Your task to perform on an android device: Open Youtube and go to the subscriptions tab Image 0: 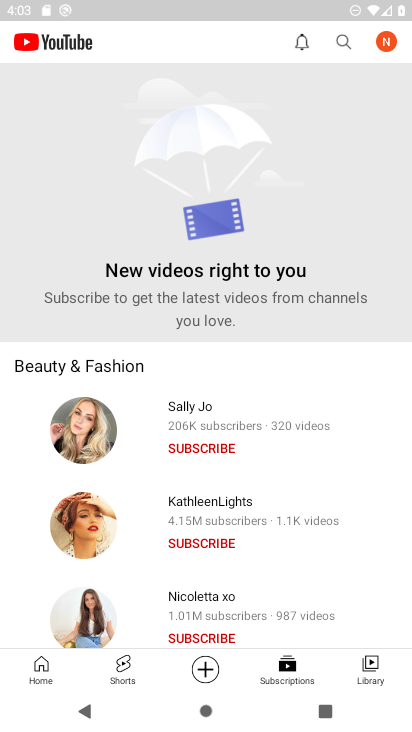
Step 0: press home button
Your task to perform on an android device: Open Youtube and go to the subscriptions tab Image 1: 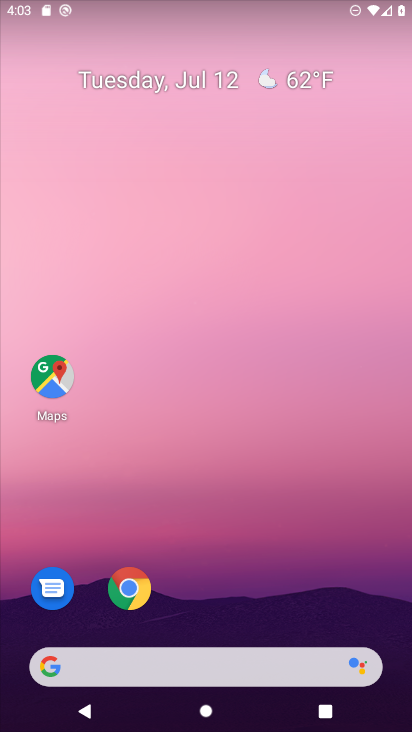
Step 1: drag from (214, 572) to (287, 118)
Your task to perform on an android device: Open Youtube and go to the subscriptions tab Image 2: 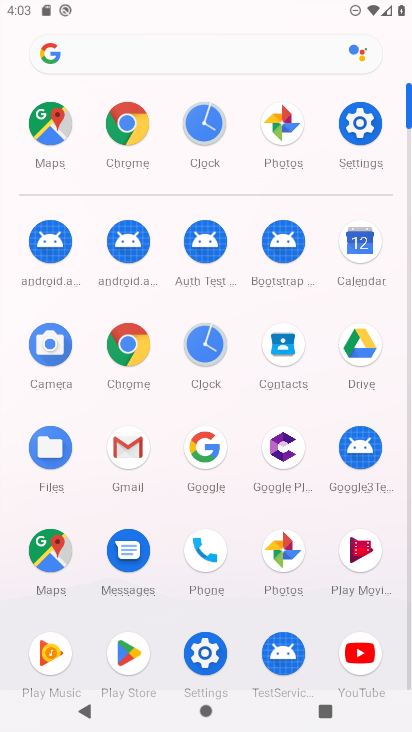
Step 2: click (347, 648)
Your task to perform on an android device: Open Youtube and go to the subscriptions tab Image 3: 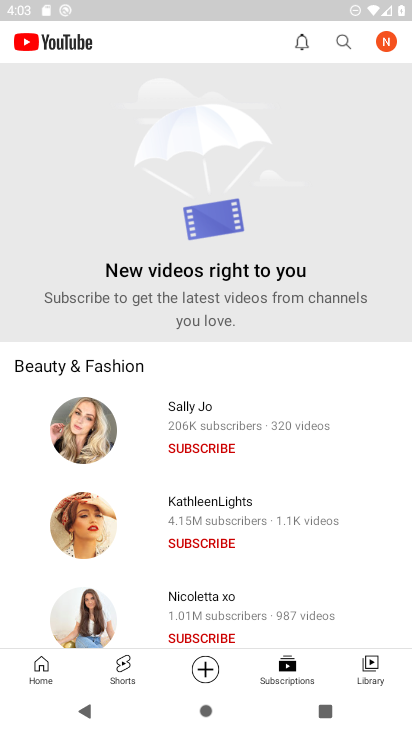
Step 3: task complete